Your task to perform on an android device: Search for the best rated headphones on Amazon Image 0: 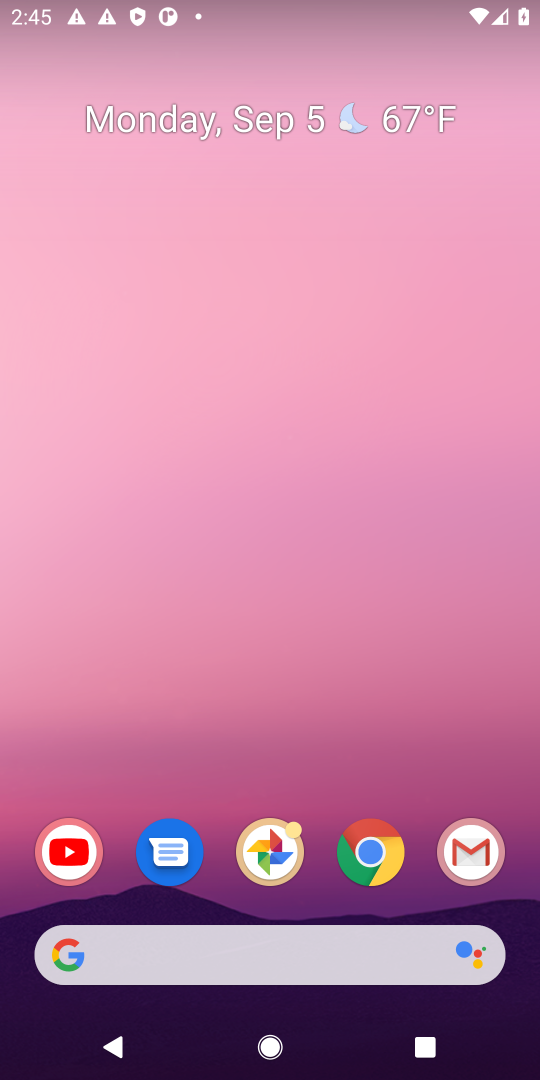
Step 0: click (367, 853)
Your task to perform on an android device: Search for the best rated headphones on Amazon Image 1: 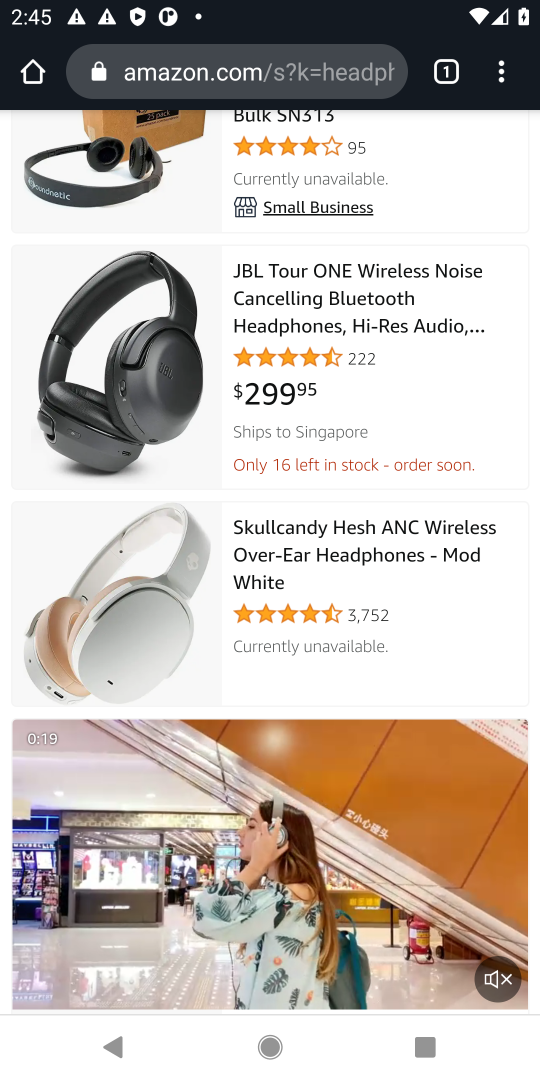
Step 1: click (284, 50)
Your task to perform on an android device: Search for the best rated headphones on Amazon Image 2: 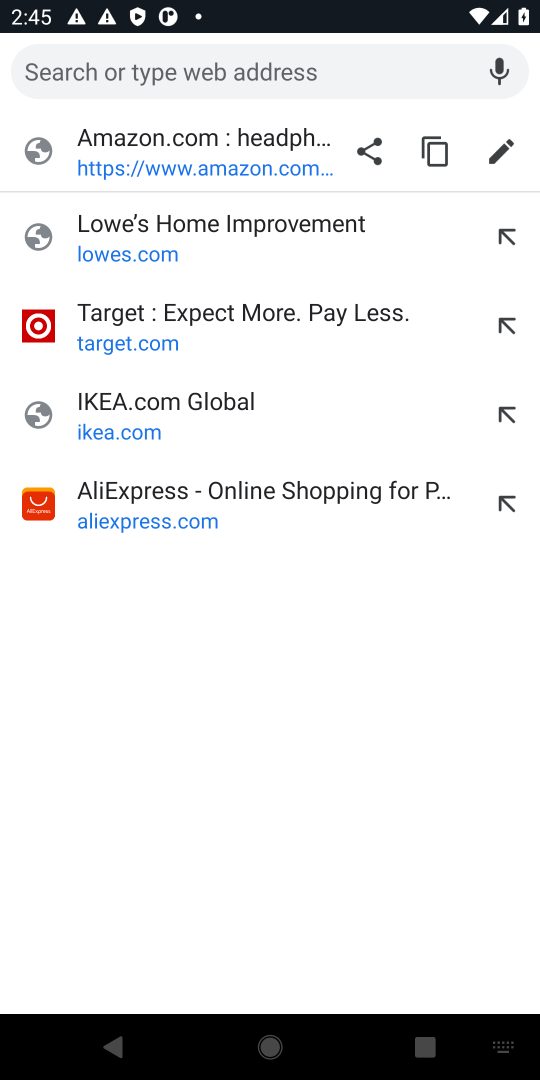
Step 2: click (114, 134)
Your task to perform on an android device: Search for the best rated headphones on Amazon Image 3: 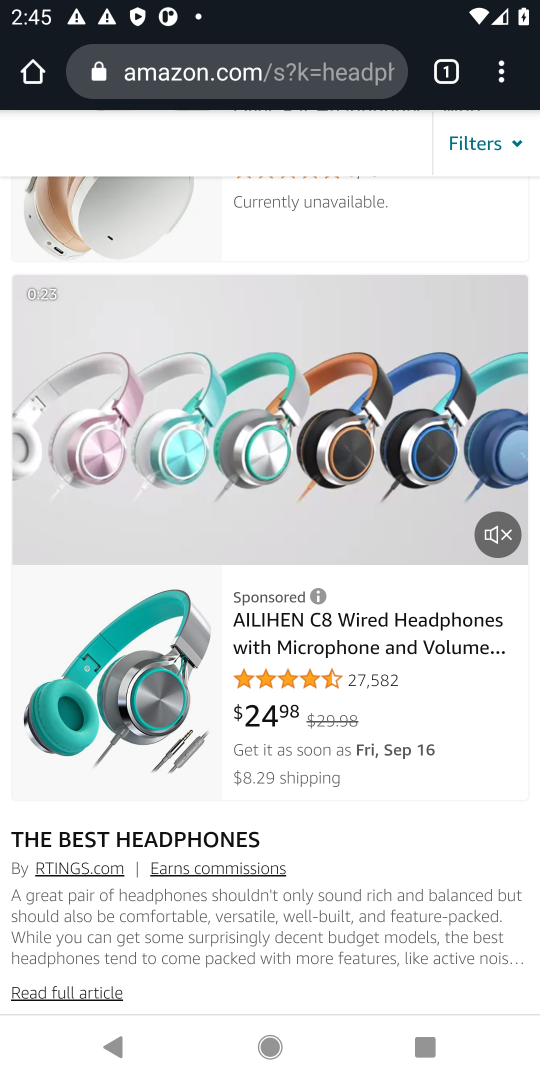
Step 3: drag from (429, 468) to (409, 735)
Your task to perform on an android device: Search for the best rated headphones on Amazon Image 4: 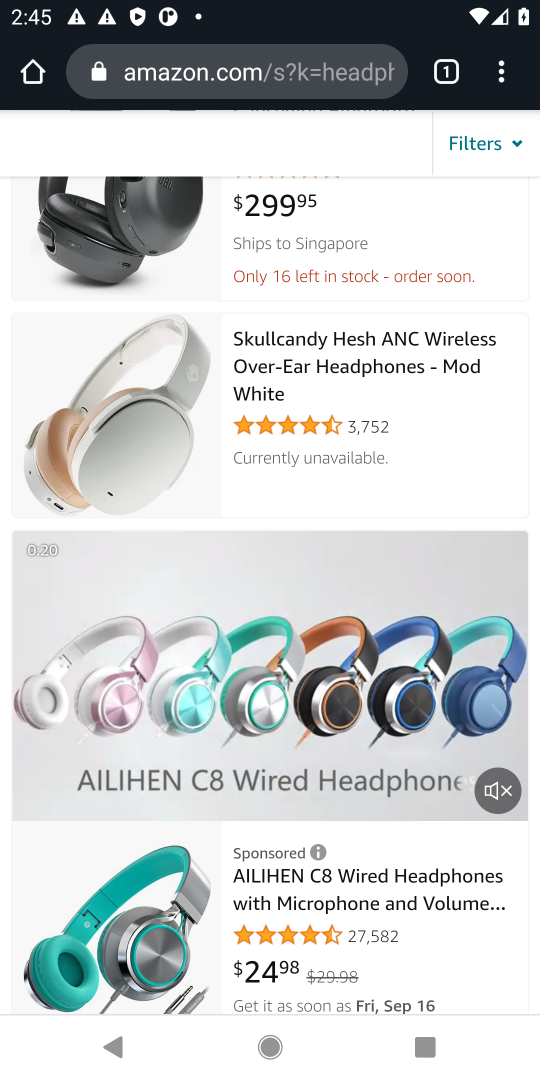
Step 4: drag from (416, 246) to (364, 815)
Your task to perform on an android device: Search for the best rated headphones on Amazon Image 5: 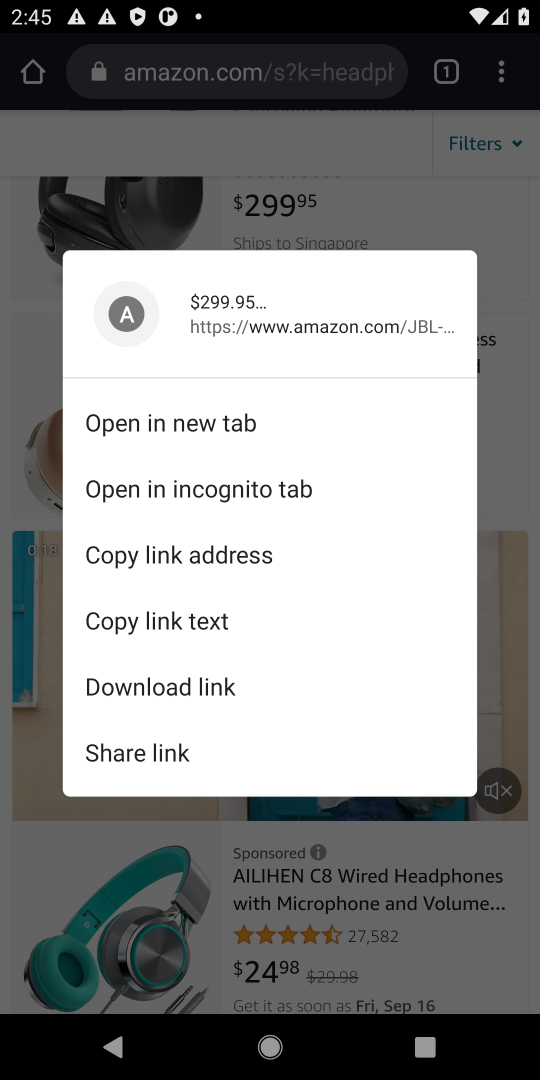
Step 5: click (408, 181)
Your task to perform on an android device: Search for the best rated headphones on Amazon Image 6: 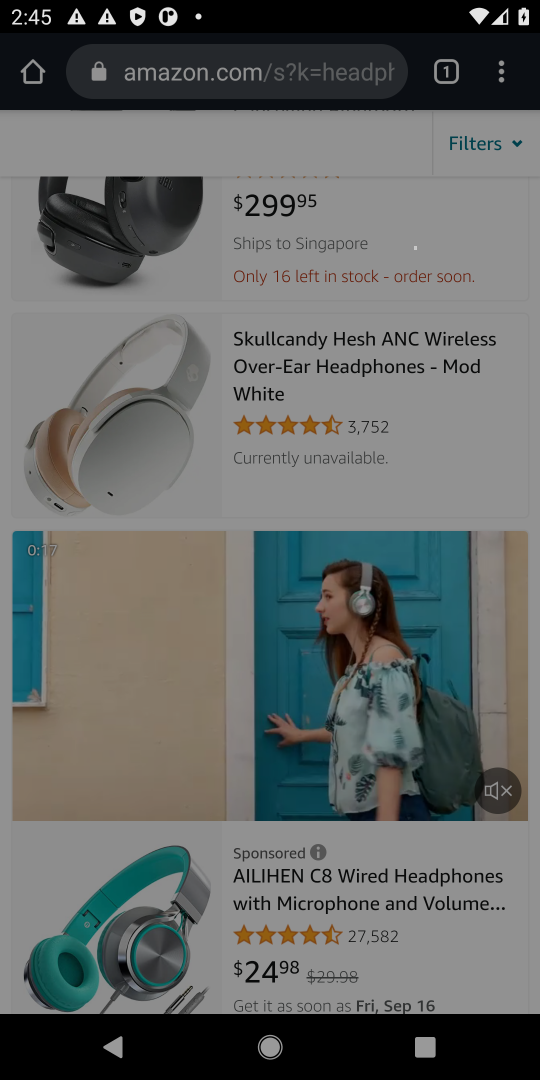
Step 6: drag from (423, 199) to (370, 730)
Your task to perform on an android device: Search for the best rated headphones on Amazon Image 7: 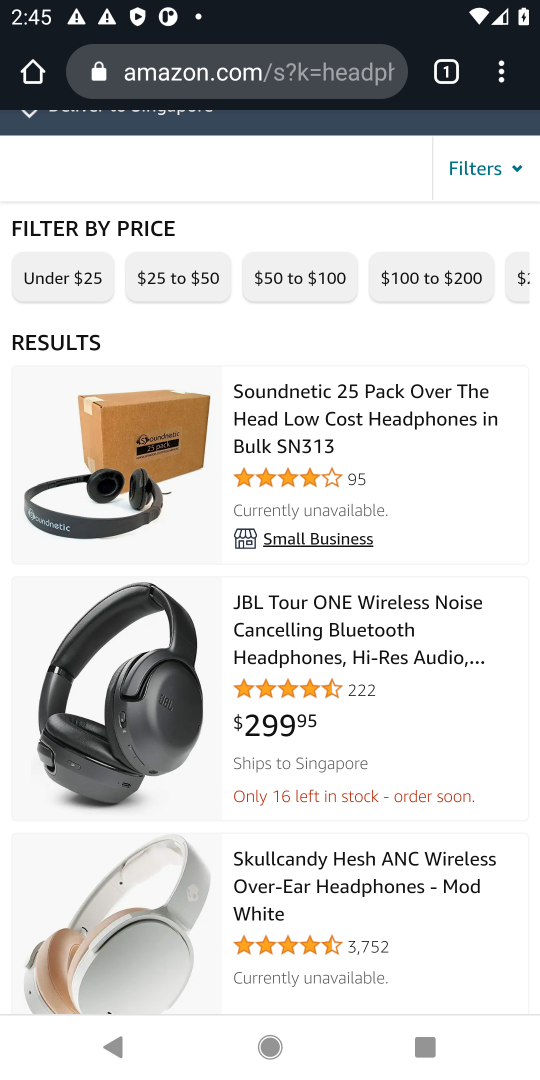
Step 7: drag from (238, 204) to (190, 764)
Your task to perform on an android device: Search for the best rated headphones on Amazon Image 8: 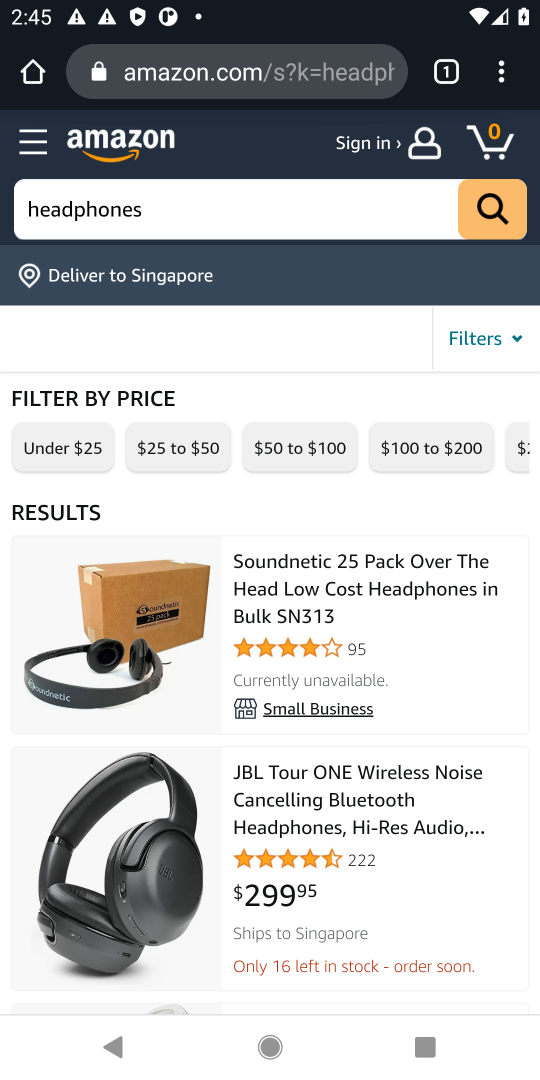
Step 8: click (172, 196)
Your task to perform on an android device: Search for the best rated headphones on Amazon Image 9: 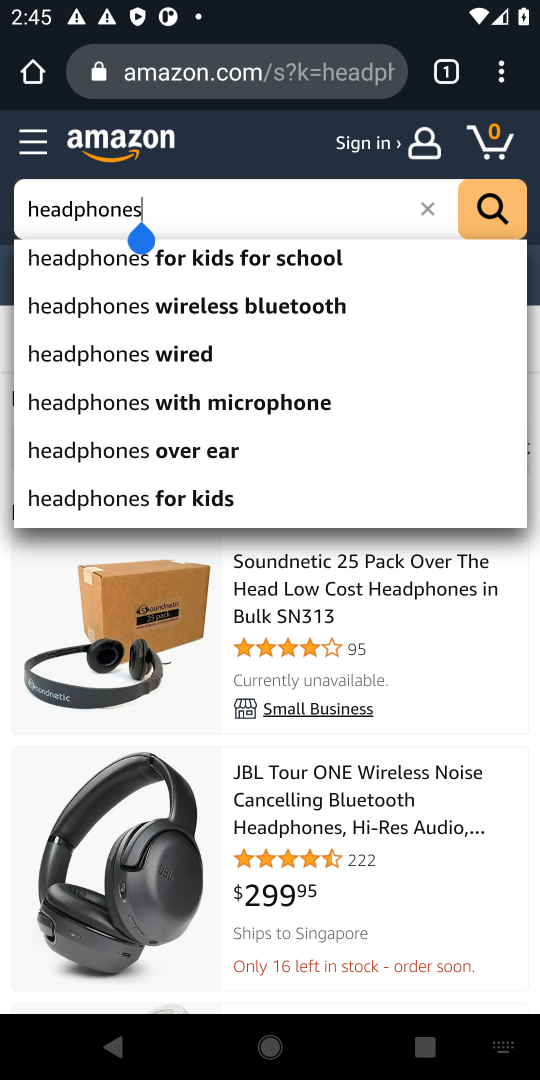
Step 9: click (425, 202)
Your task to perform on an android device: Search for the best rated headphones on Amazon Image 10: 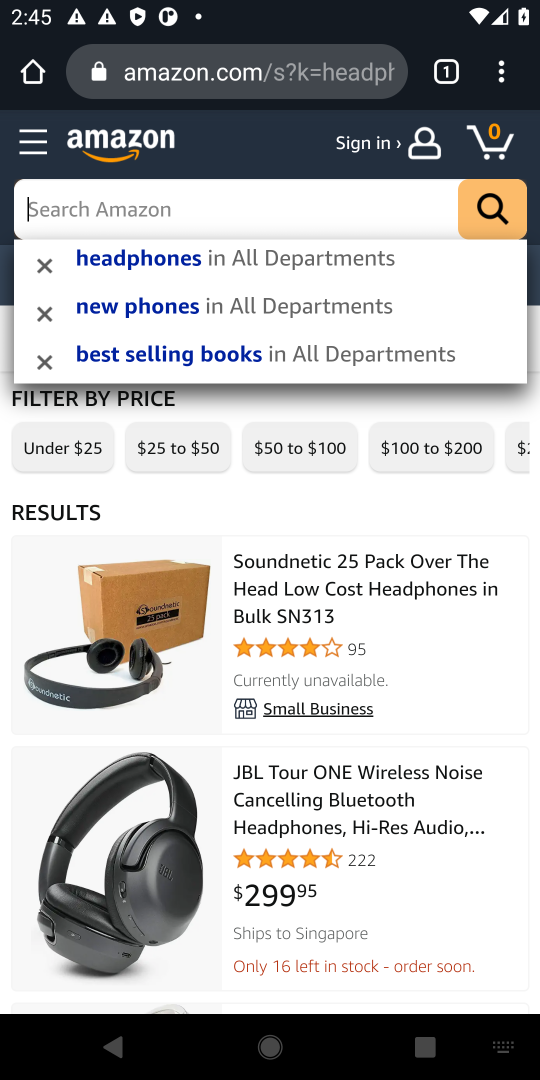
Step 10: click (139, 260)
Your task to perform on an android device: Search for the best rated headphones on Amazon Image 11: 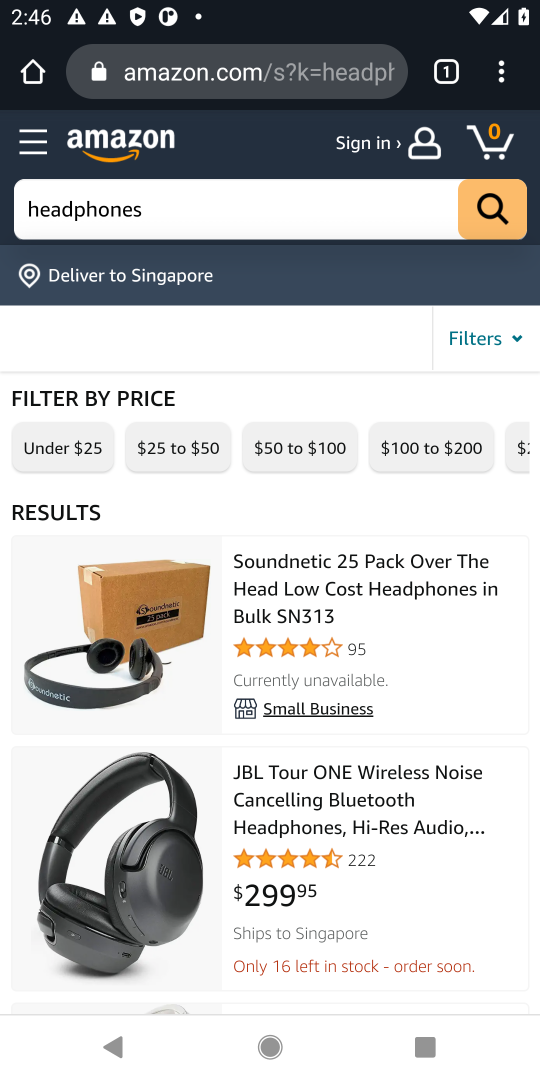
Step 11: click (489, 208)
Your task to perform on an android device: Search for the best rated headphones on Amazon Image 12: 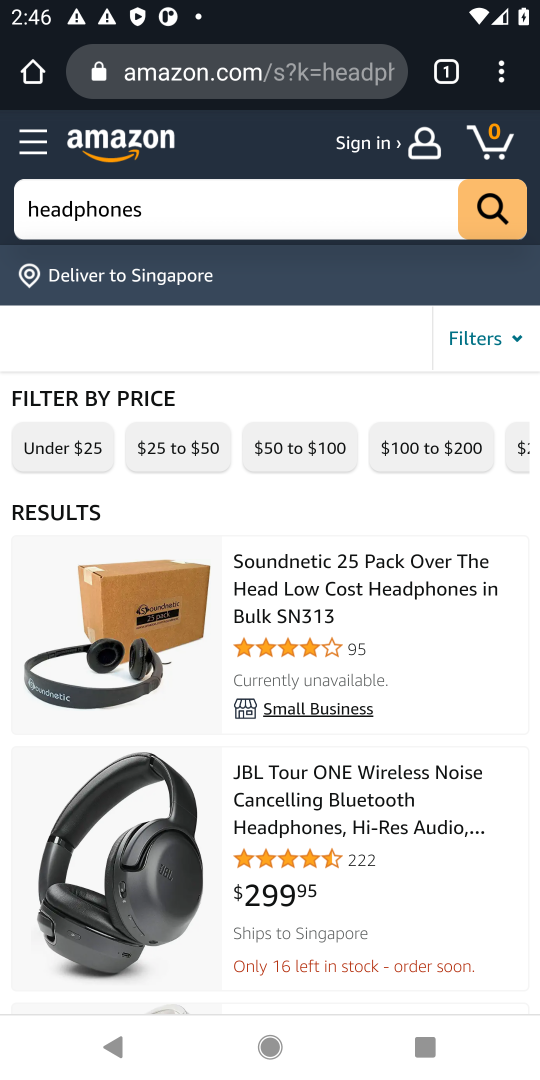
Step 12: task complete